Your task to perform on an android device: Search for jbl charge 4 on newegg.com, select the first entry, and add it to the cart. Image 0: 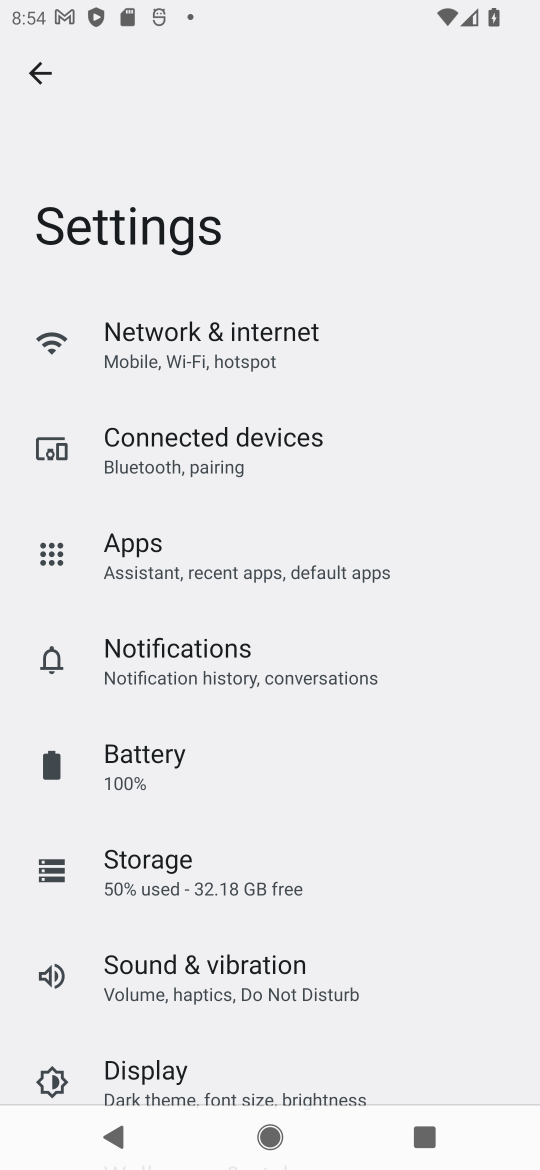
Step 0: press home button
Your task to perform on an android device: Search for jbl charge 4 on newegg.com, select the first entry, and add it to the cart. Image 1: 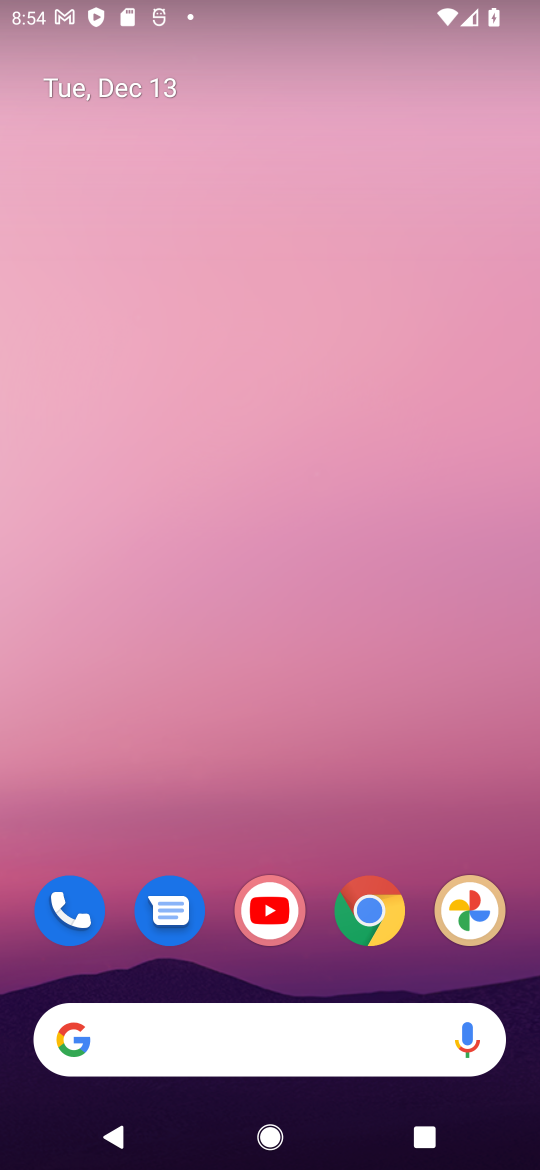
Step 1: drag from (236, 1003) to (186, 370)
Your task to perform on an android device: Search for jbl charge 4 on newegg.com, select the first entry, and add it to the cart. Image 2: 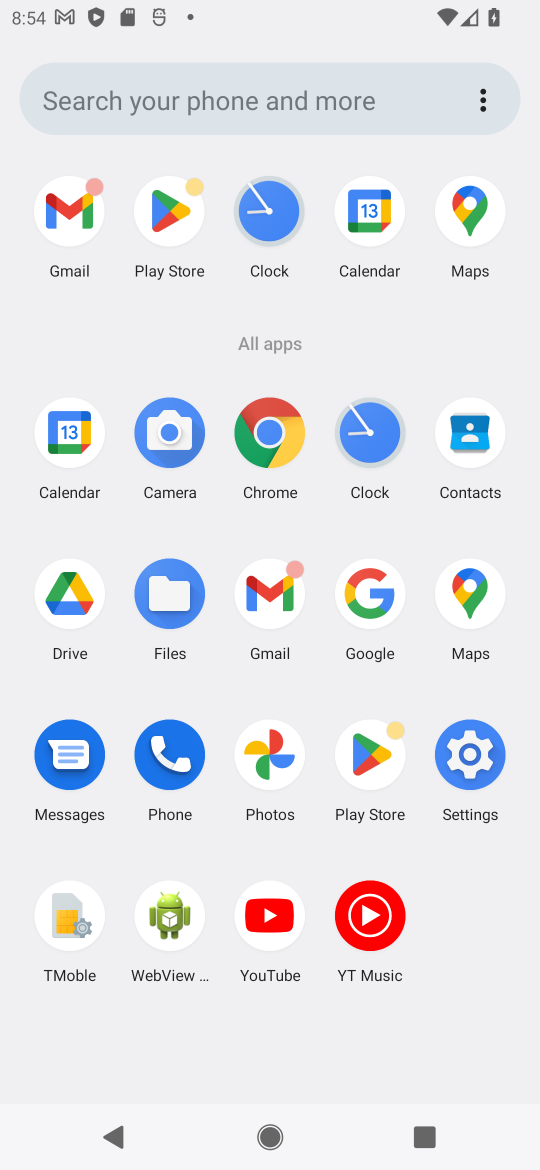
Step 2: click (381, 588)
Your task to perform on an android device: Search for jbl charge 4 on newegg.com, select the first entry, and add it to the cart. Image 3: 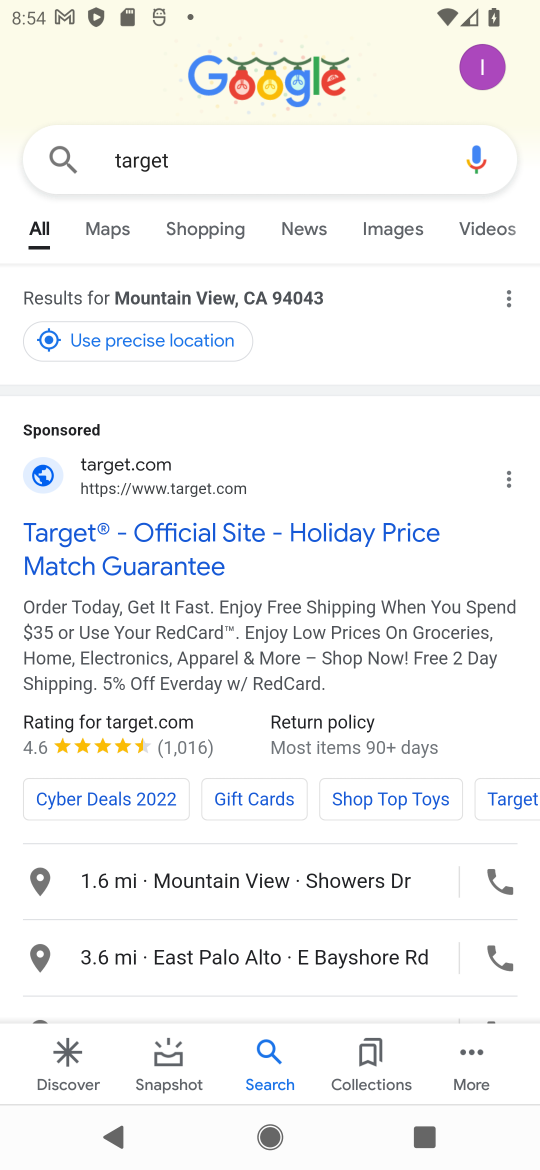
Step 3: click (172, 135)
Your task to perform on an android device: Search for jbl charge 4 on newegg.com, select the first entry, and add it to the cart. Image 4: 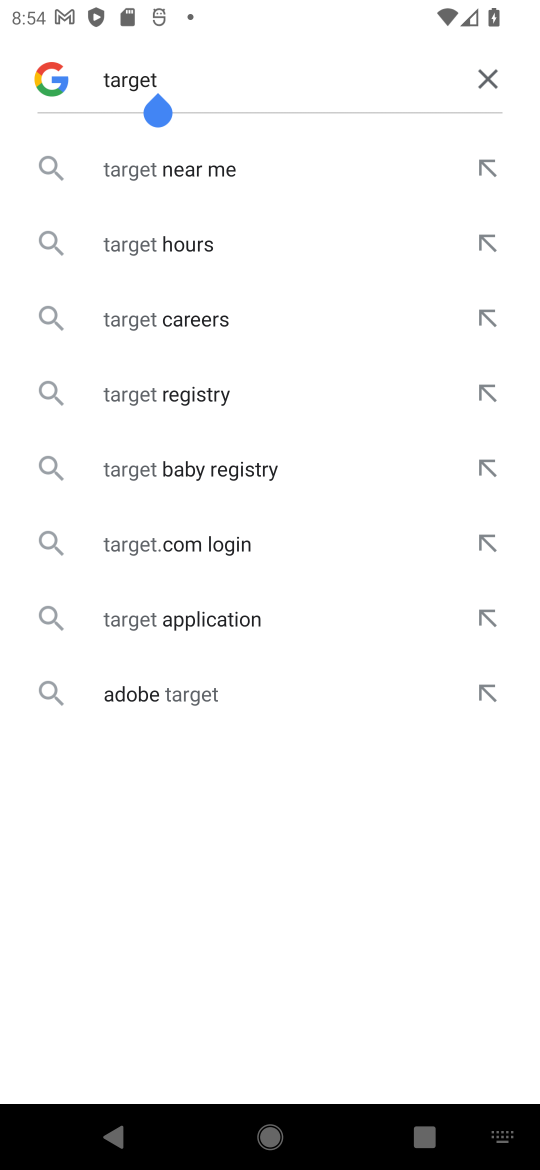
Step 4: click (483, 67)
Your task to perform on an android device: Search for jbl charge 4 on newegg.com, select the first entry, and add it to the cart. Image 5: 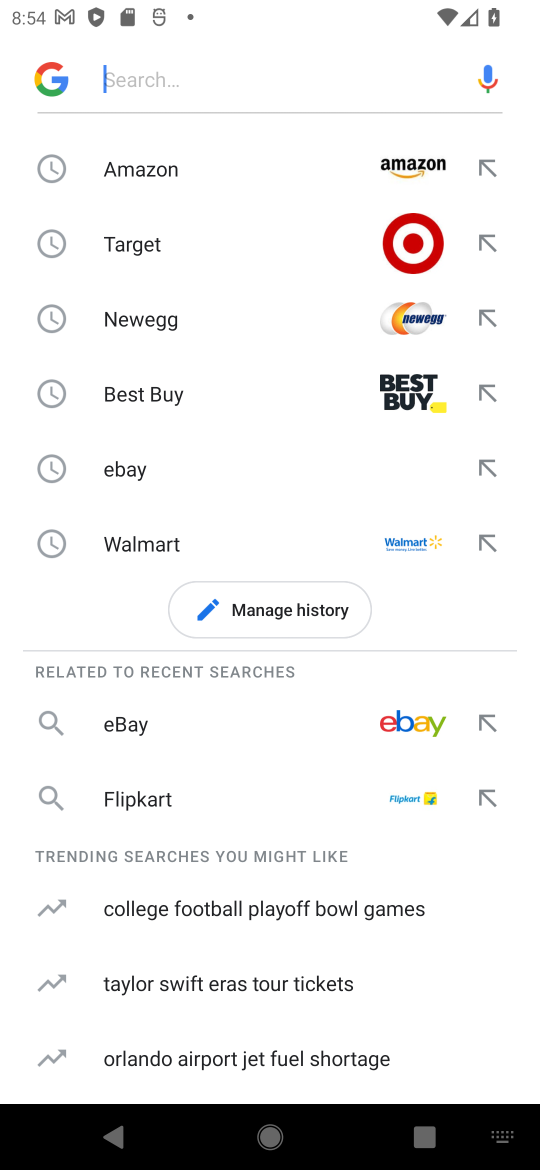
Step 5: click (149, 316)
Your task to perform on an android device: Search for jbl charge 4 on newegg.com, select the first entry, and add it to the cart. Image 6: 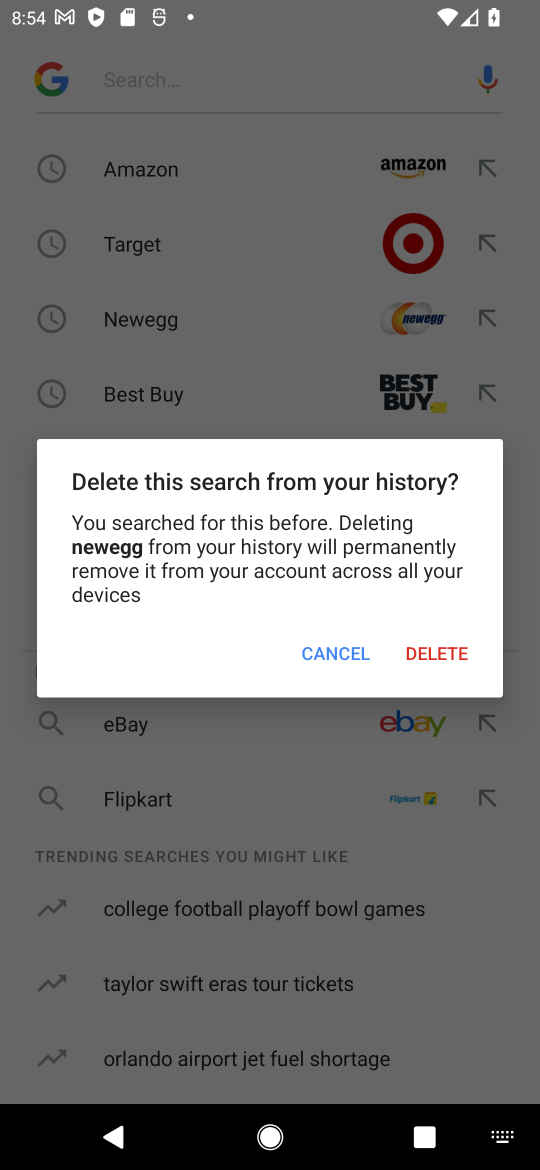
Step 6: click (321, 646)
Your task to perform on an android device: Search for jbl charge 4 on newegg.com, select the first entry, and add it to the cart. Image 7: 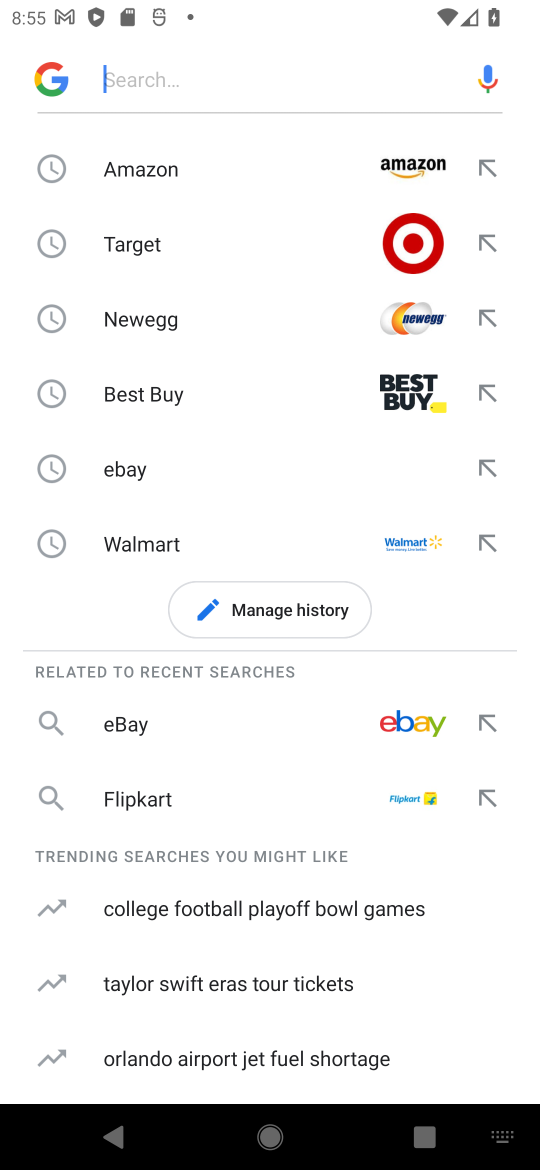
Step 7: click (413, 319)
Your task to perform on an android device: Search for jbl charge 4 on newegg.com, select the first entry, and add it to the cart. Image 8: 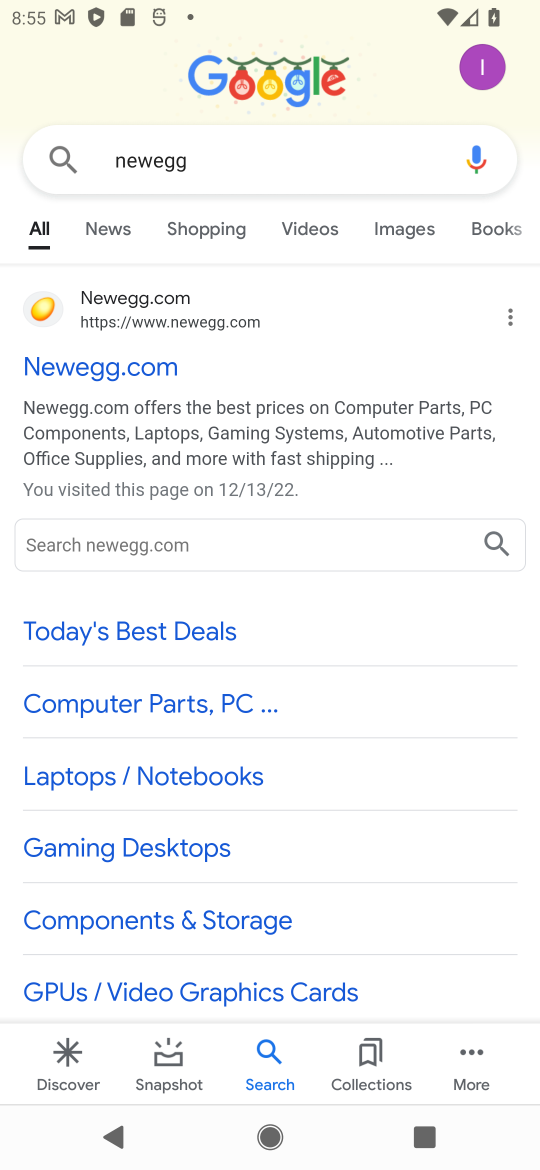
Step 8: click (66, 361)
Your task to perform on an android device: Search for jbl charge 4 on newegg.com, select the first entry, and add it to the cart. Image 9: 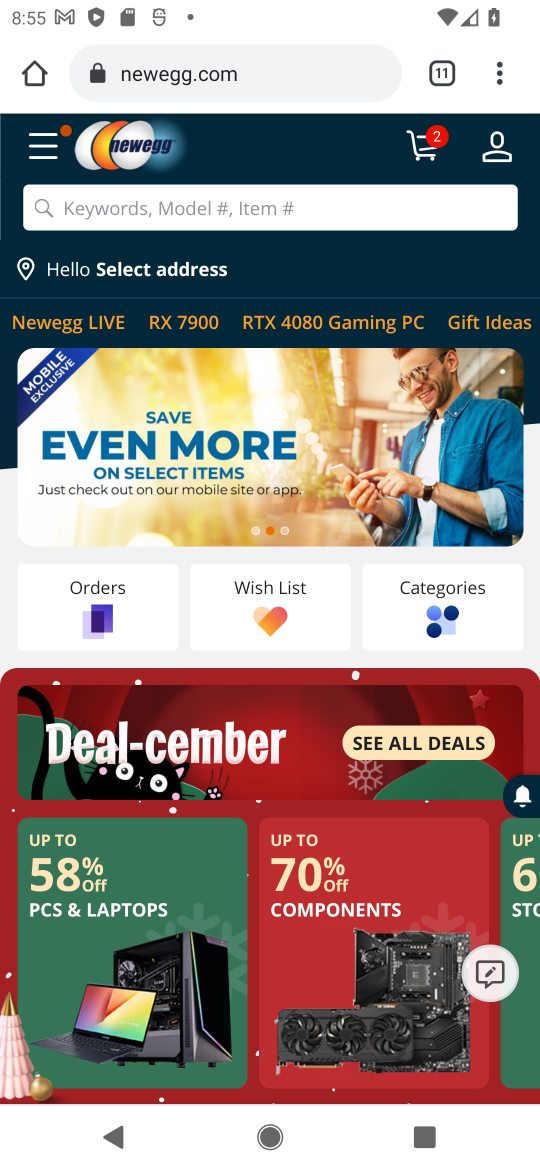
Step 9: click (106, 208)
Your task to perform on an android device: Search for jbl charge 4 on newegg.com, select the first entry, and add it to the cart. Image 10: 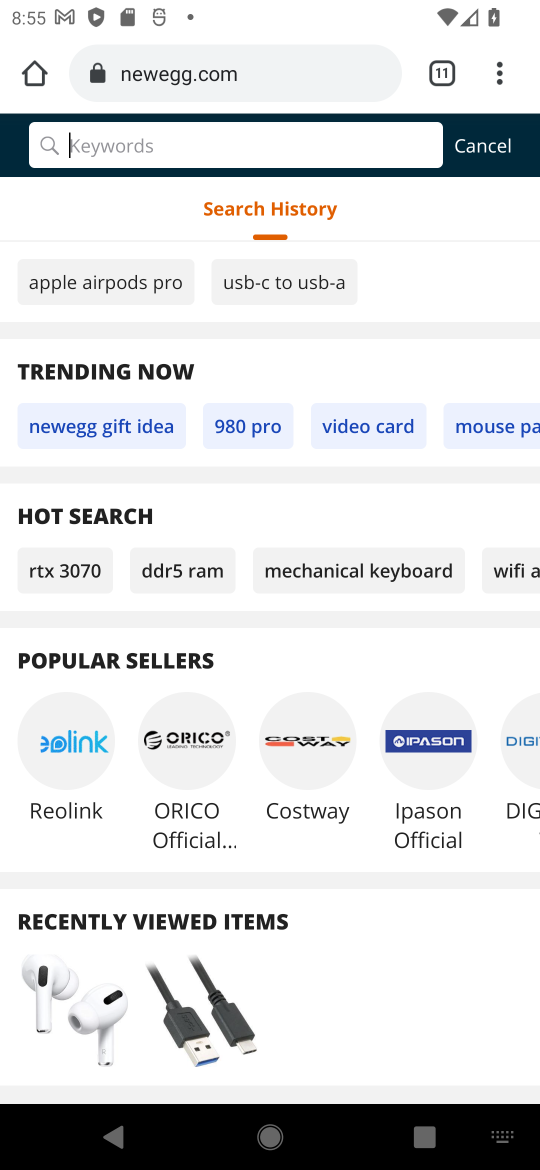
Step 10: type "jbl charge 4"
Your task to perform on an android device: Search for jbl charge 4 on newegg.com, select the first entry, and add it to the cart. Image 11: 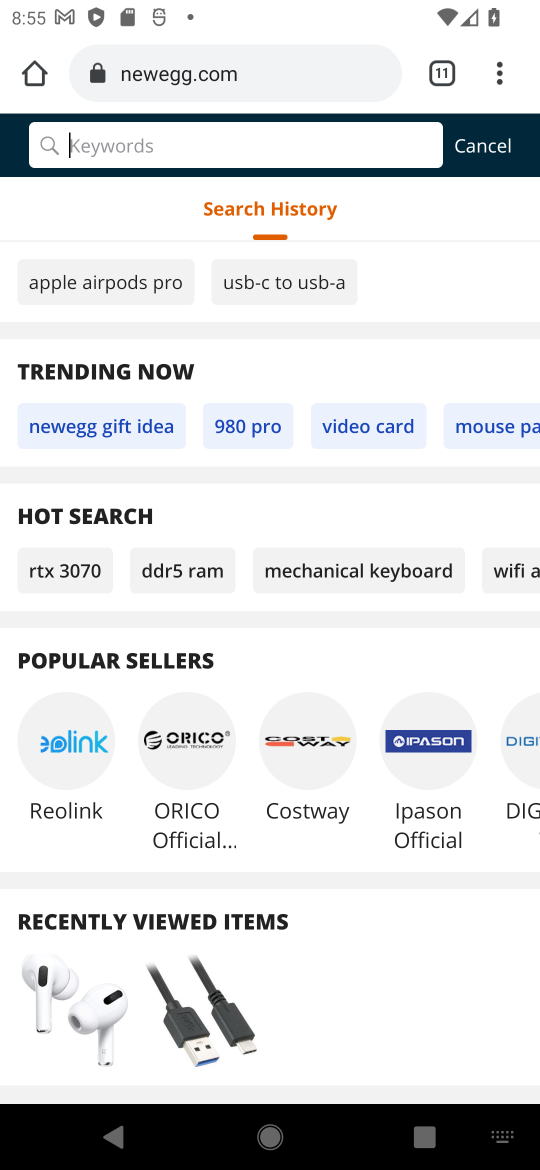
Step 11: click (54, 148)
Your task to perform on an android device: Search for jbl charge 4 on newegg.com, select the first entry, and add it to the cart. Image 12: 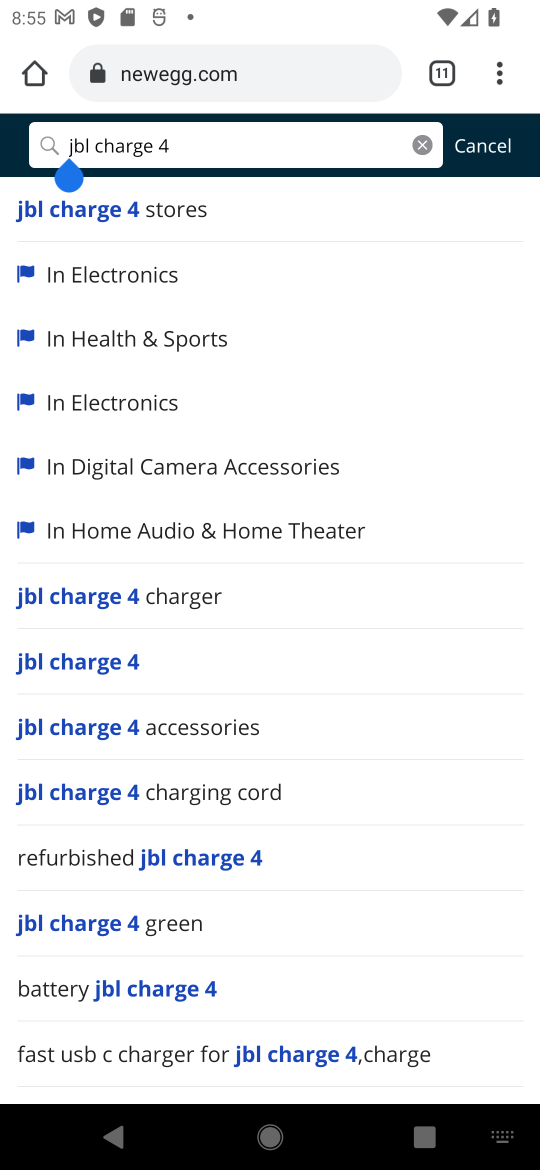
Step 12: click (117, 206)
Your task to perform on an android device: Search for jbl charge 4 on newegg.com, select the first entry, and add it to the cart. Image 13: 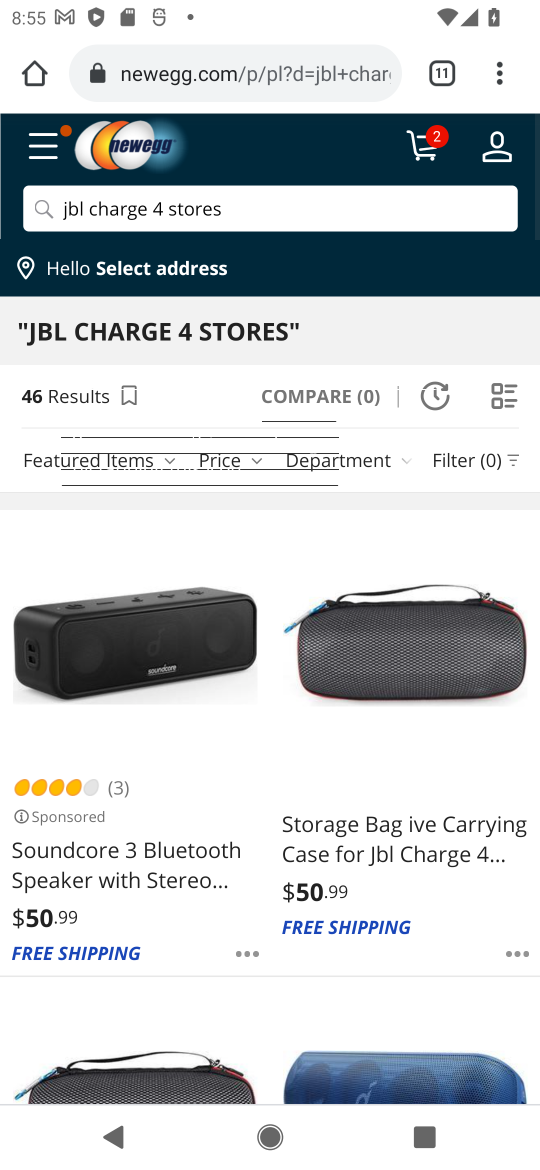
Step 13: drag from (246, 780) to (246, 413)
Your task to perform on an android device: Search for jbl charge 4 on newegg.com, select the first entry, and add it to the cart. Image 14: 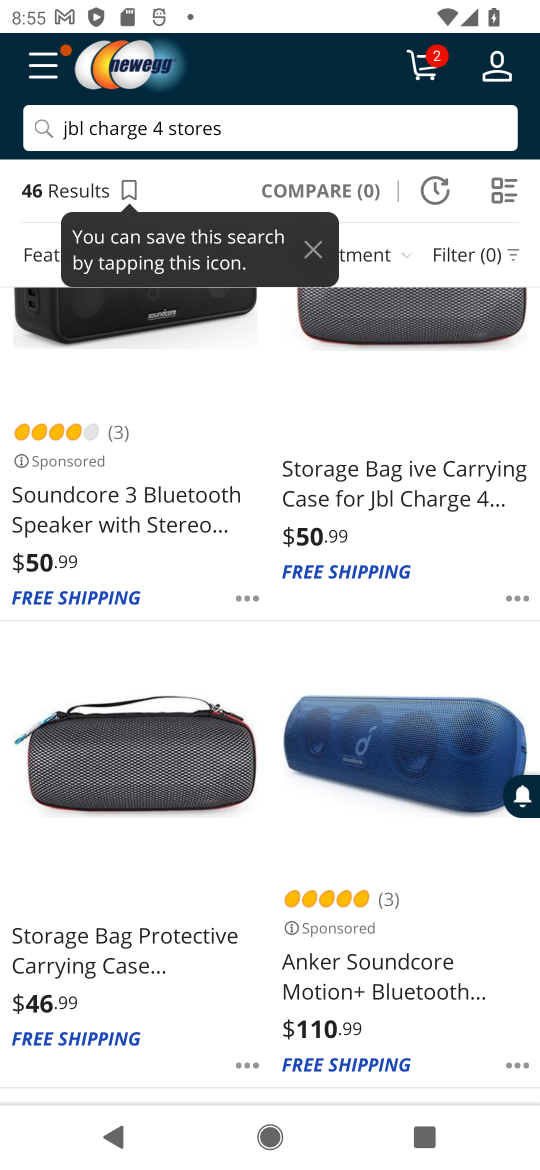
Step 14: click (139, 366)
Your task to perform on an android device: Search for jbl charge 4 on newegg.com, select the first entry, and add it to the cart. Image 15: 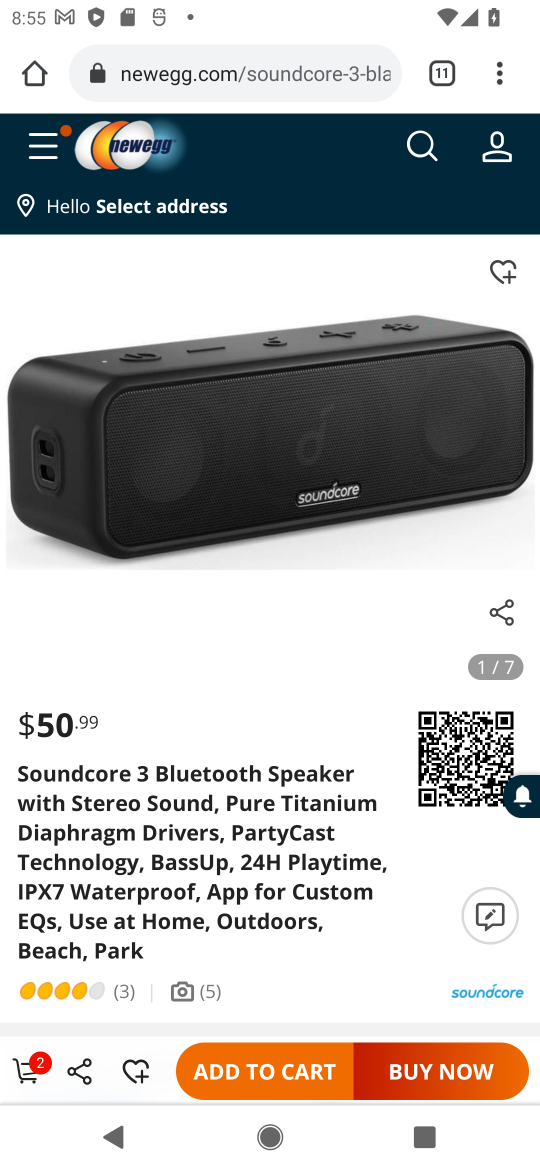
Step 15: click (276, 1067)
Your task to perform on an android device: Search for jbl charge 4 on newegg.com, select the first entry, and add it to the cart. Image 16: 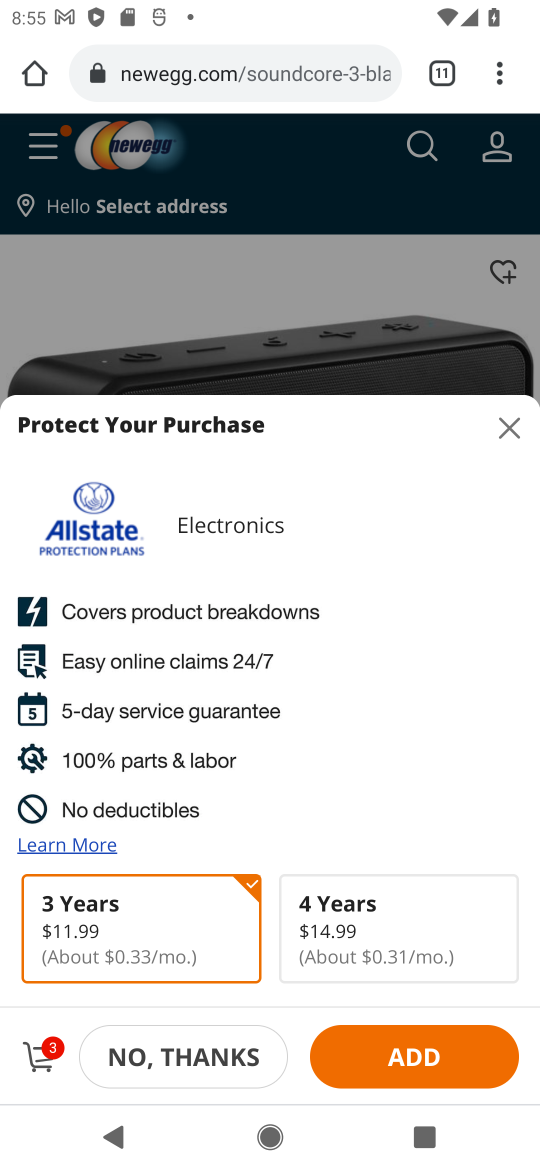
Step 16: task complete